Your task to perform on an android device: add a label to a message in the gmail app Image 0: 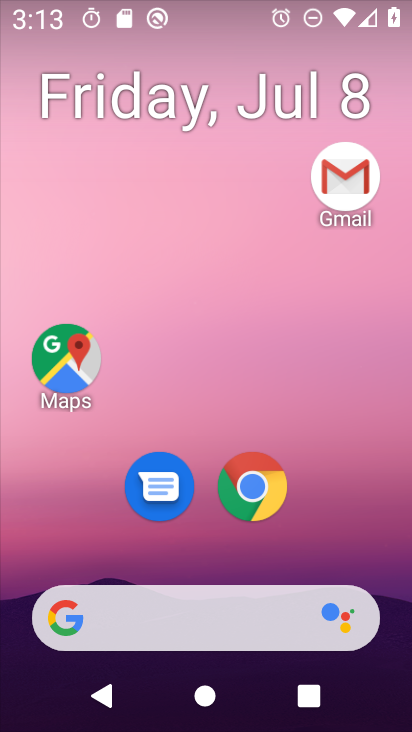
Step 0: drag from (363, 541) to (363, 176)
Your task to perform on an android device: add a label to a message in the gmail app Image 1: 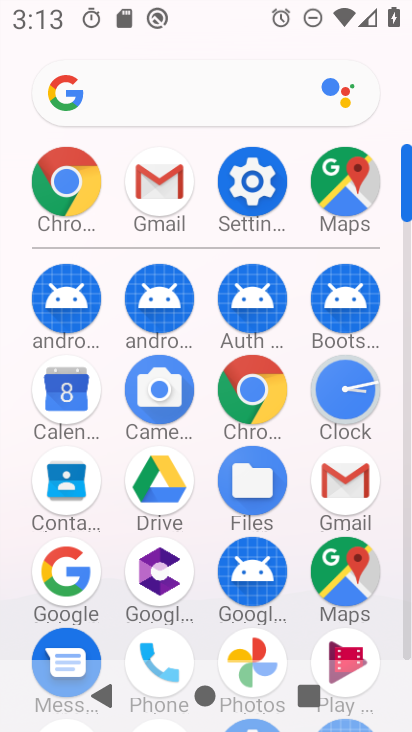
Step 1: click (351, 484)
Your task to perform on an android device: add a label to a message in the gmail app Image 2: 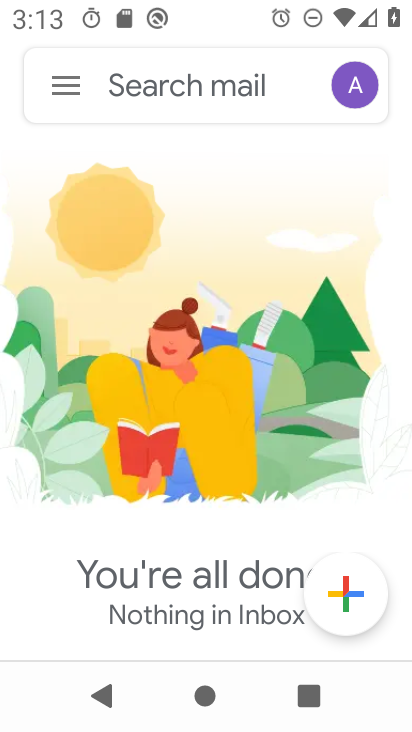
Step 2: task complete